Your task to perform on an android device: Toggle the flashlight Image 0: 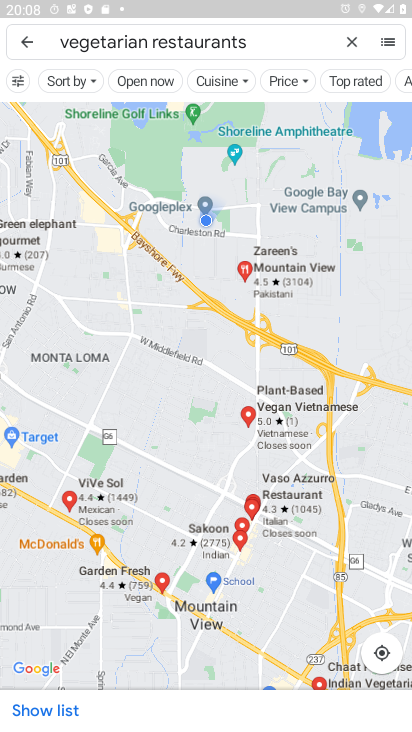
Step 0: press home button
Your task to perform on an android device: Toggle the flashlight Image 1: 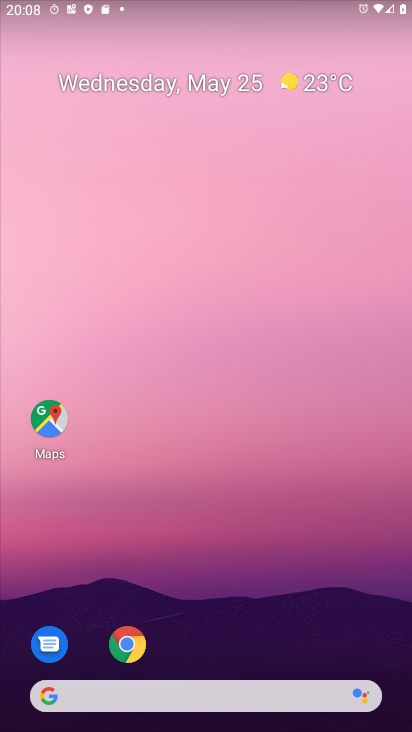
Step 1: drag from (250, 709) to (313, 113)
Your task to perform on an android device: Toggle the flashlight Image 2: 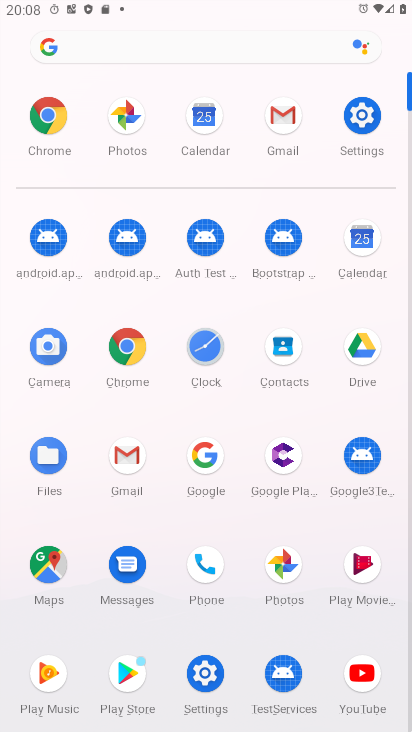
Step 2: click (361, 129)
Your task to perform on an android device: Toggle the flashlight Image 3: 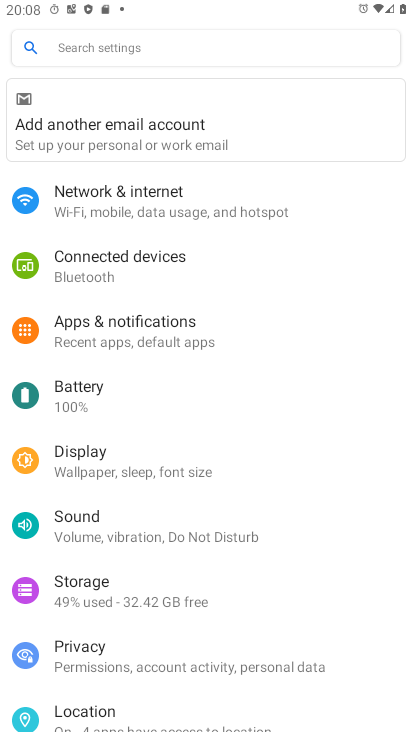
Step 3: click (79, 53)
Your task to perform on an android device: Toggle the flashlight Image 4: 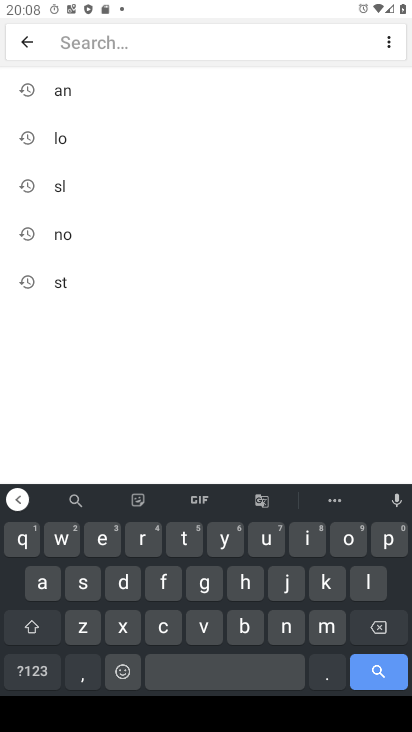
Step 4: click (170, 584)
Your task to perform on an android device: Toggle the flashlight Image 5: 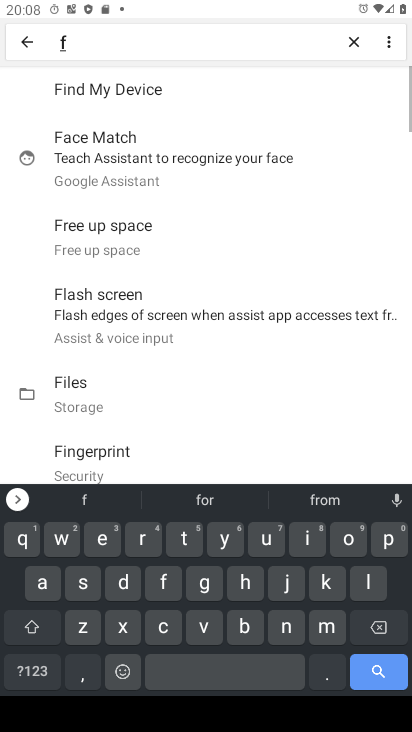
Step 5: click (364, 580)
Your task to perform on an android device: Toggle the flashlight Image 6: 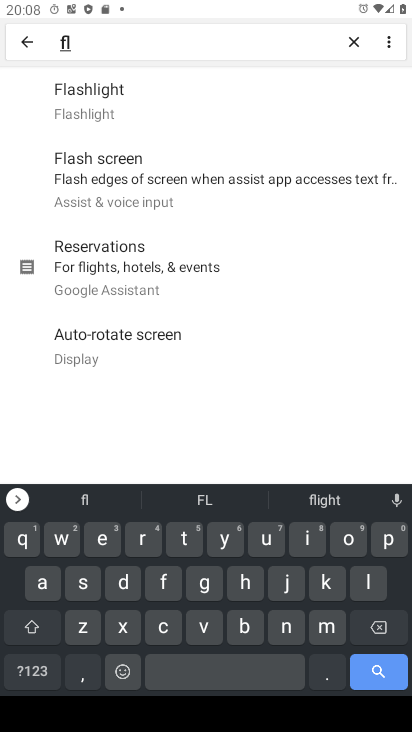
Step 6: click (126, 112)
Your task to perform on an android device: Toggle the flashlight Image 7: 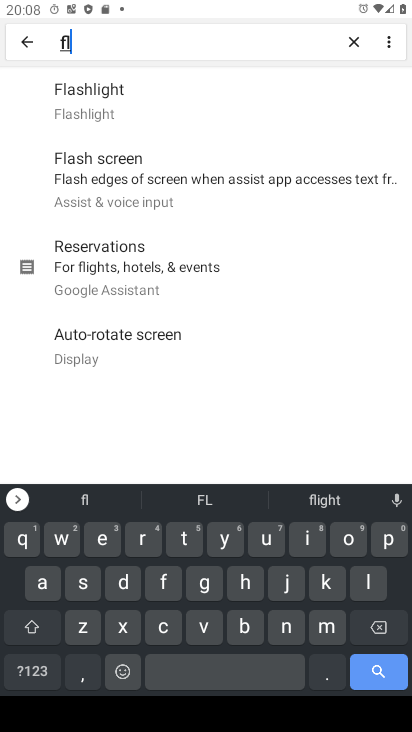
Step 7: task complete